Your task to perform on an android device: open chrome privacy settings Image 0: 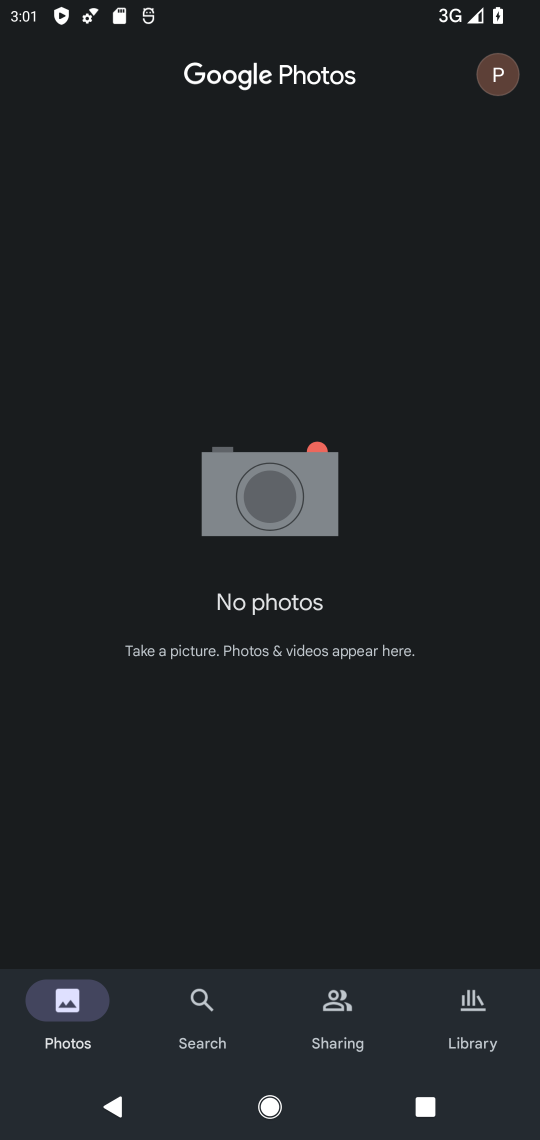
Step 0: press home button
Your task to perform on an android device: open chrome privacy settings Image 1: 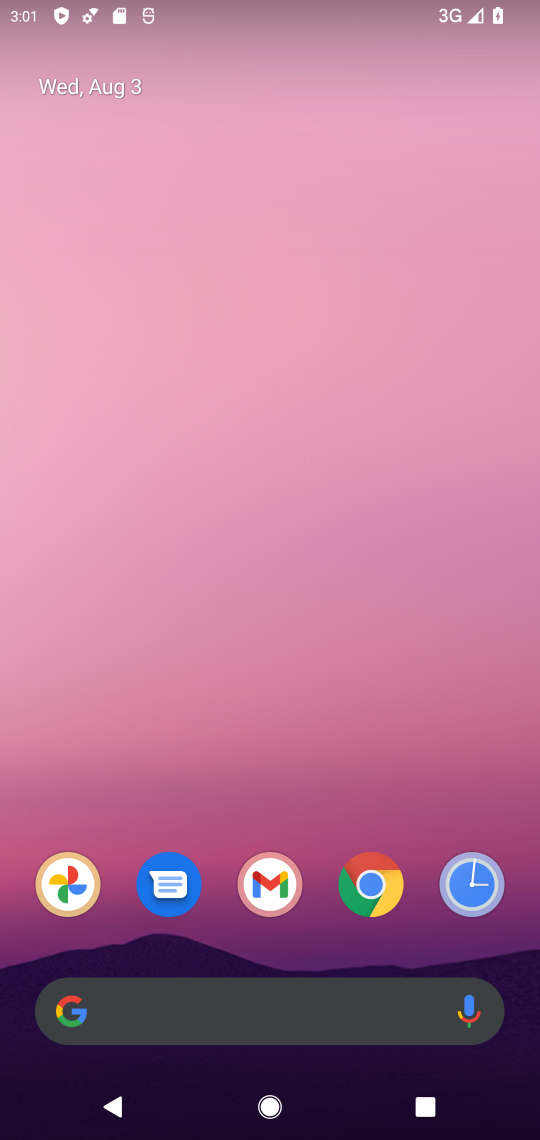
Step 1: click (356, 887)
Your task to perform on an android device: open chrome privacy settings Image 2: 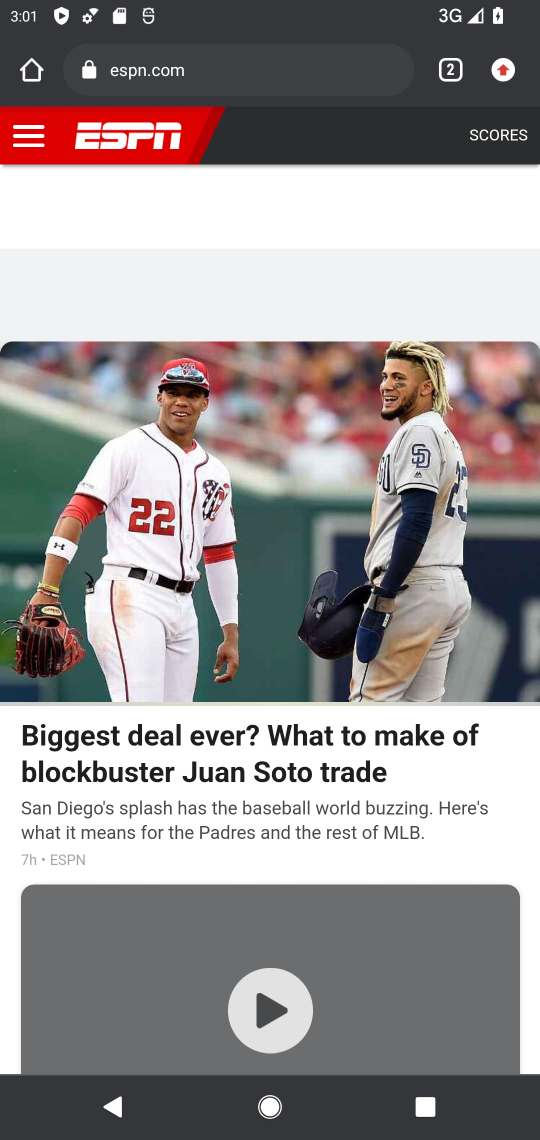
Step 2: click (499, 67)
Your task to perform on an android device: open chrome privacy settings Image 3: 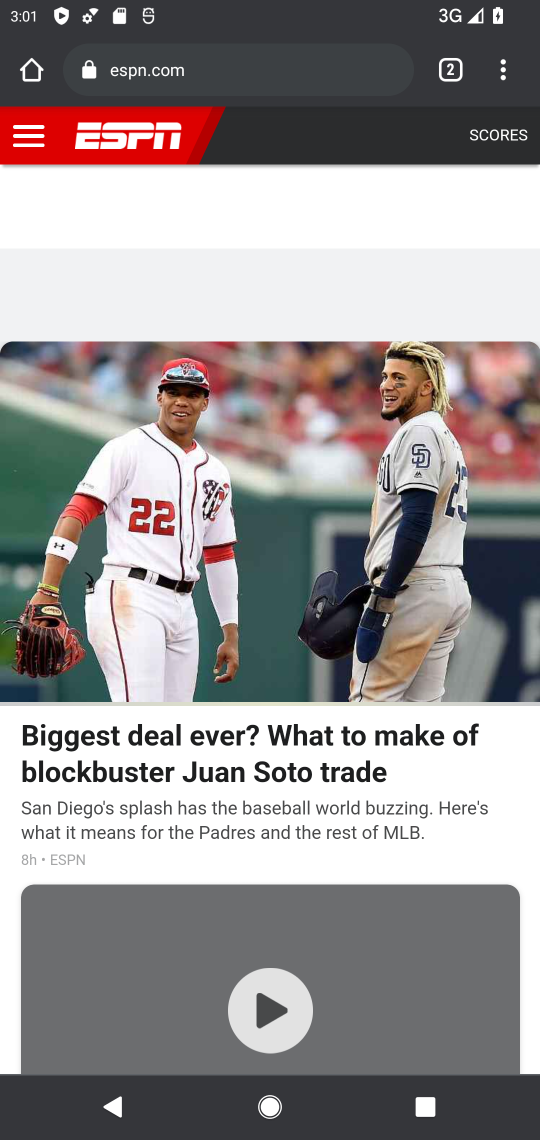
Step 3: click (497, 84)
Your task to perform on an android device: open chrome privacy settings Image 4: 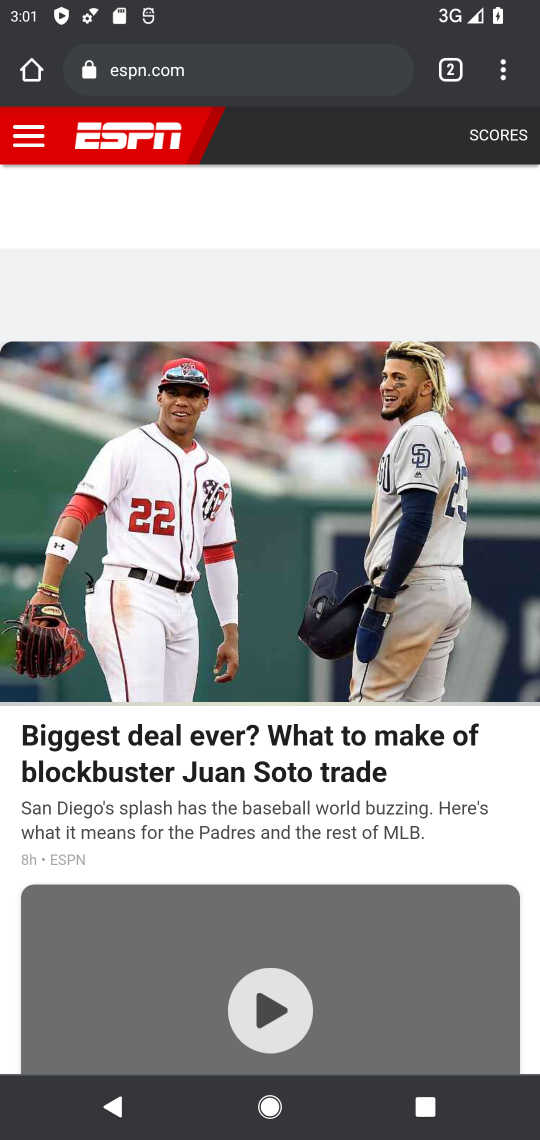
Step 4: click (512, 67)
Your task to perform on an android device: open chrome privacy settings Image 5: 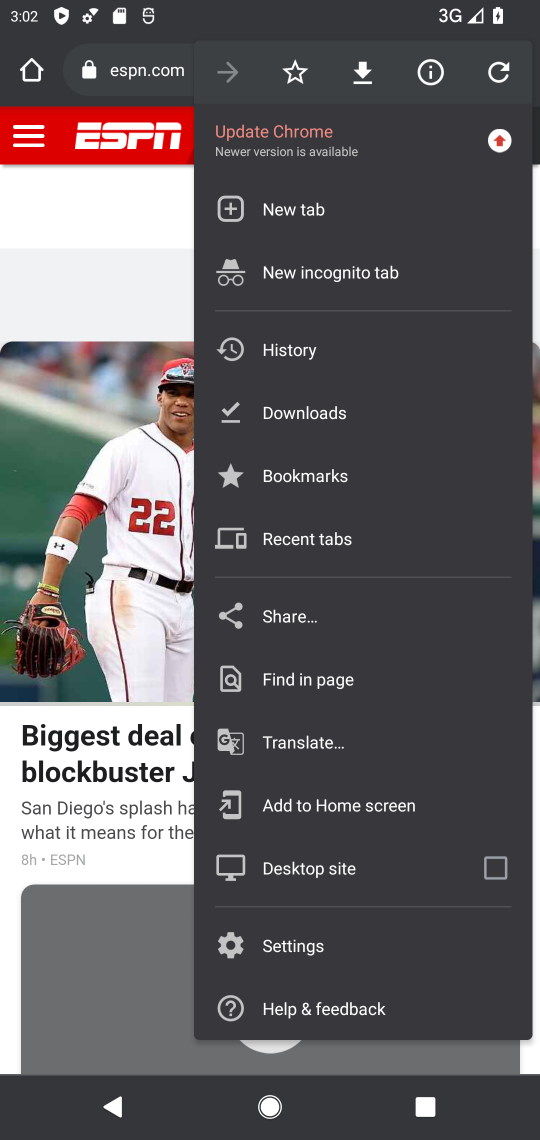
Step 5: click (280, 955)
Your task to perform on an android device: open chrome privacy settings Image 6: 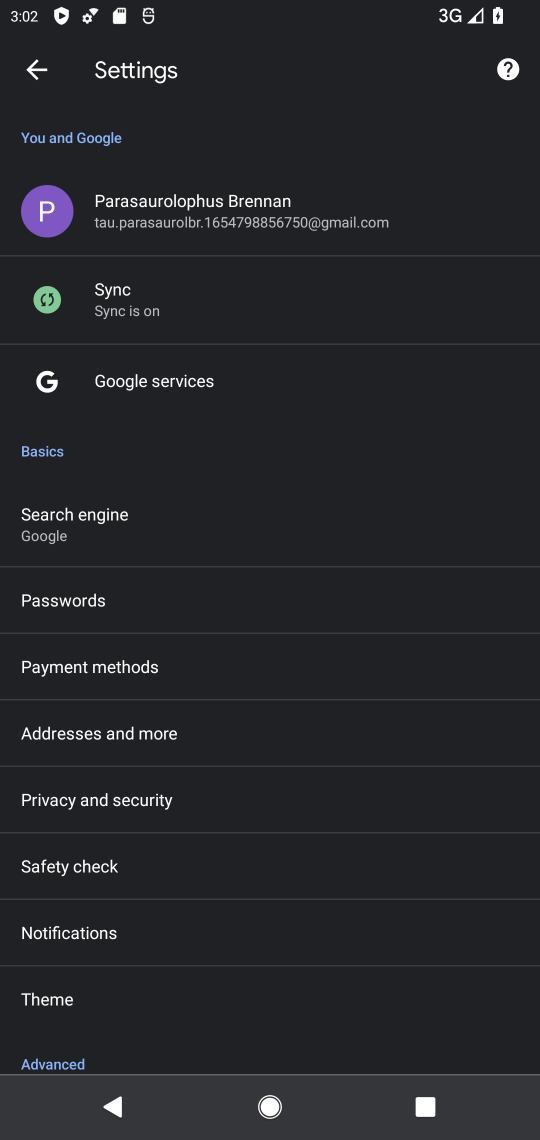
Step 6: click (212, 779)
Your task to perform on an android device: open chrome privacy settings Image 7: 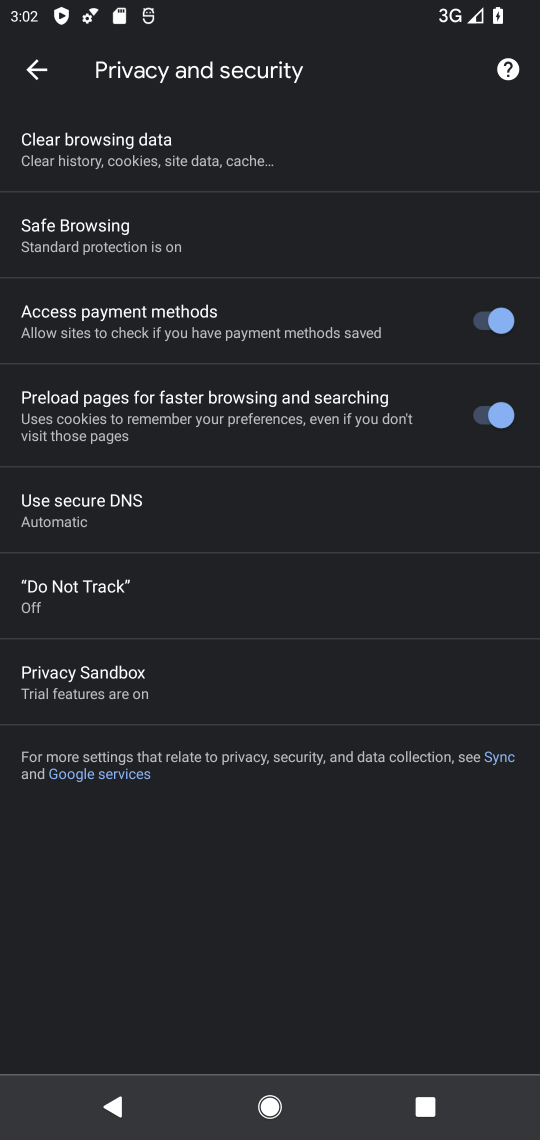
Step 7: task complete